Your task to perform on an android device: Open accessibility settings Image 0: 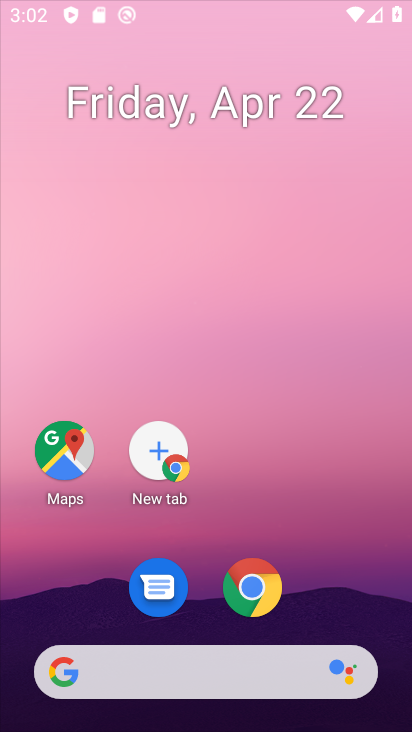
Step 0: drag from (207, 622) to (158, 192)
Your task to perform on an android device: Open accessibility settings Image 1: 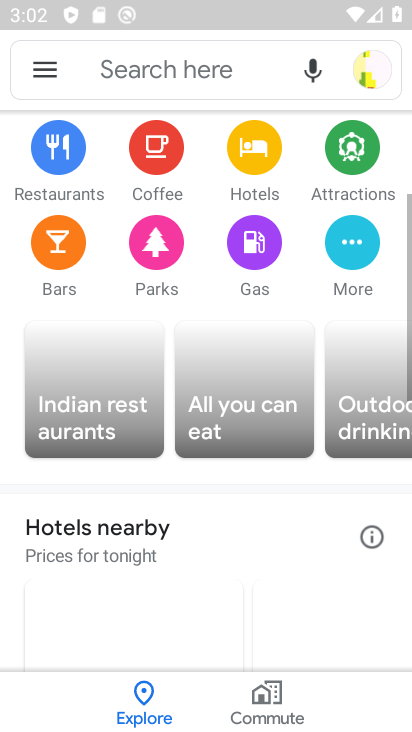
Step 1: press home button
Your task to perform on an android device: Open accessibility settings Image 2: 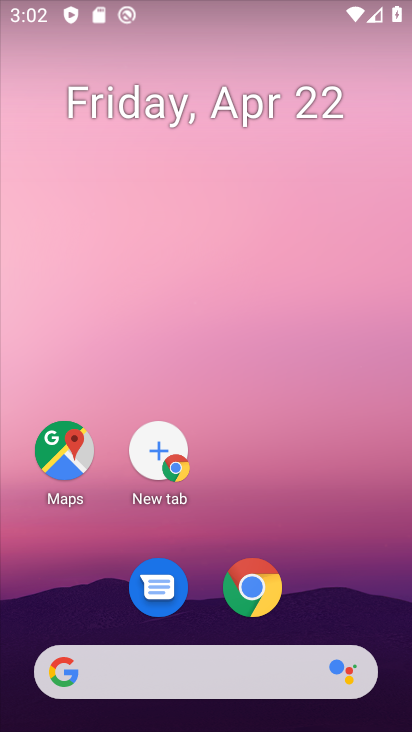
Step 2: drag from (221, 615) to (218, 103)
Your task to perform on an android device: Open accessibility settings Image 3: 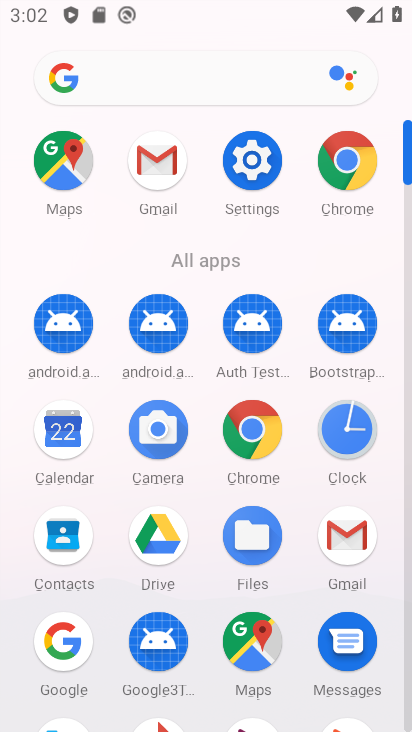
Step 3: click (258, 165)
Your task to perform on an android device: Open accessibility settings Image 4: 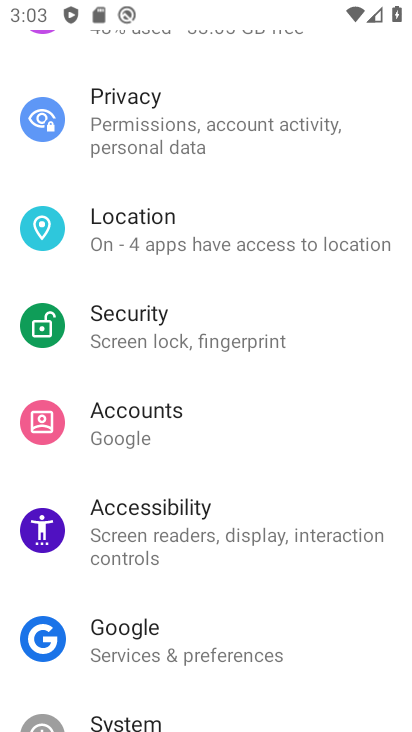
Step 4: click (152, 549)
Your task to perform on an android device: Open accessibility settings Image 5: 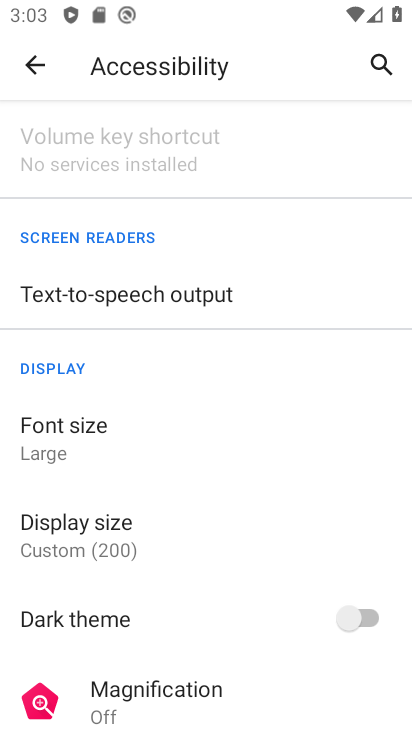
Step 5: task complete